Your task to perform on an android device: turn off data saver in the chrome app Image 0: 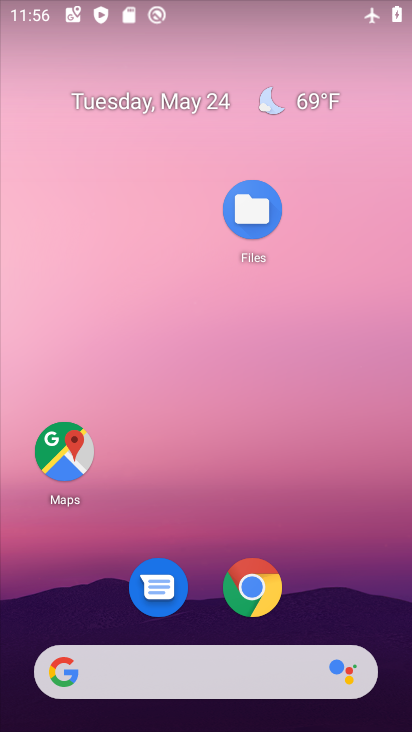
Step 0: click (257, 583)
Your task to perform on an android device: turn off data saver in the chrome app Image 1: 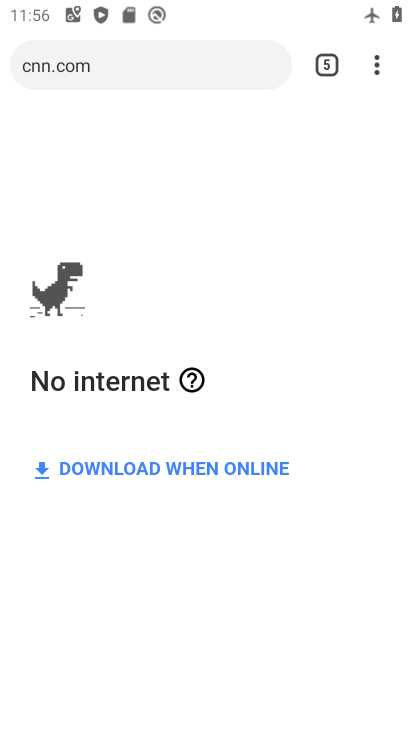
Step 1: click (380, 66)
Your task to perform on an android device: turn off data saver in the chrome app Image 2: 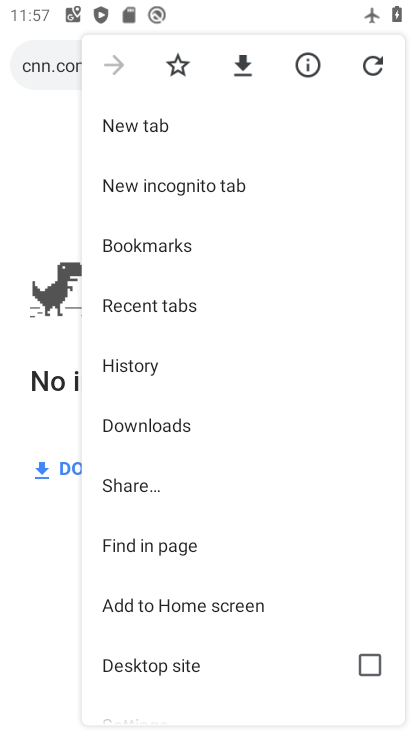
Step 2: drag from (169, 637) to (189, 286)
Your task to perform on an android device: turn off data saver in the chrome app Image 3: 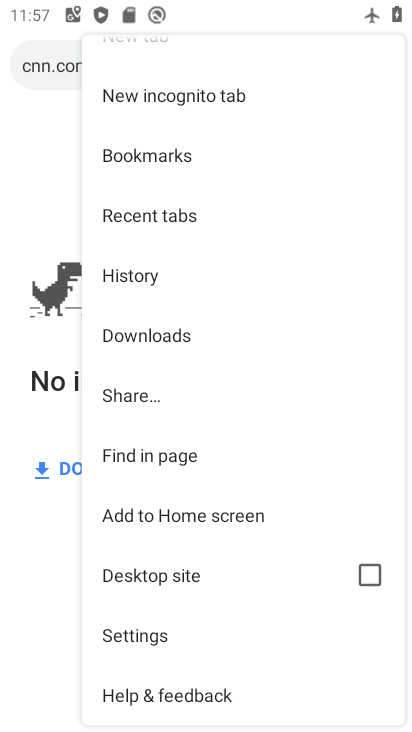
Step 3: click (148, 638)
Your task to perform on an android device: turn off data saver in the chrome app Image 4: 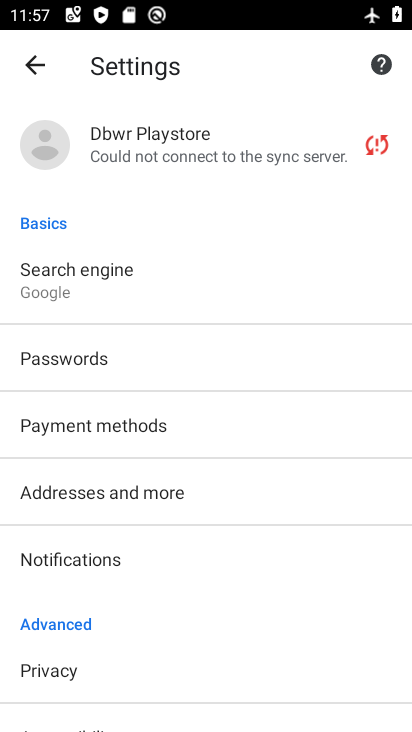
Step 4: drag from (159, 662) to (177, 358)
Your task to perform on an android device: turn off data saver in the chrome app Image 5: 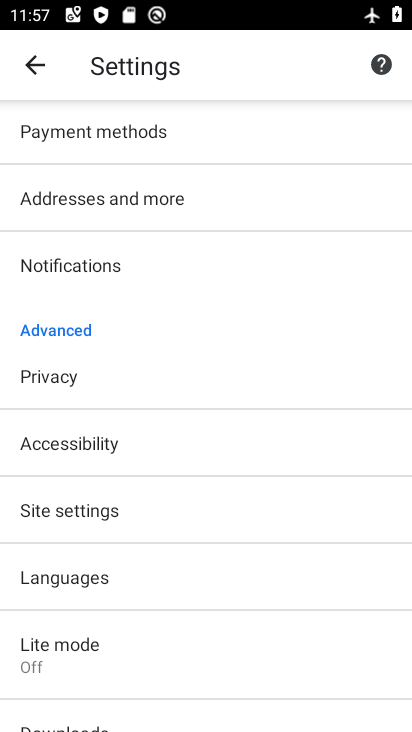
Step 5: click (52, 651)
Your task to perform on an android device: turn off data saver in the chrome app Image 6: 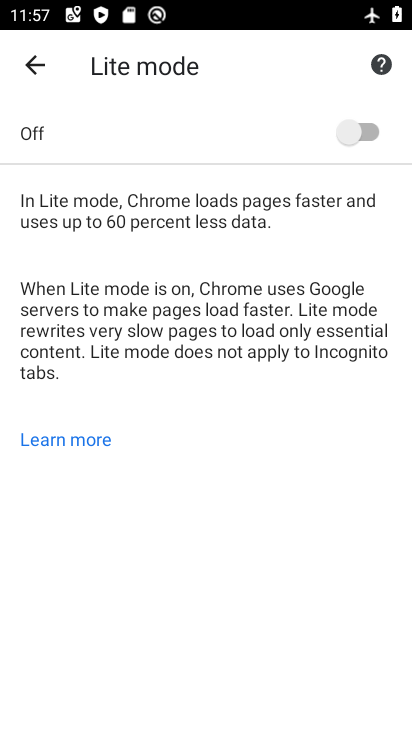
Step 6: task complete